Your task to perform on an android device: What's the weather today? Image 0: 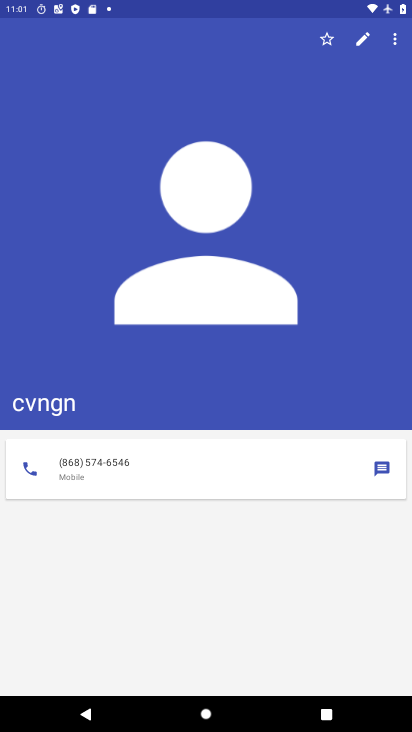
Step 0: press home button
Your task to perform on an android device: What's the weather today? Image 1: 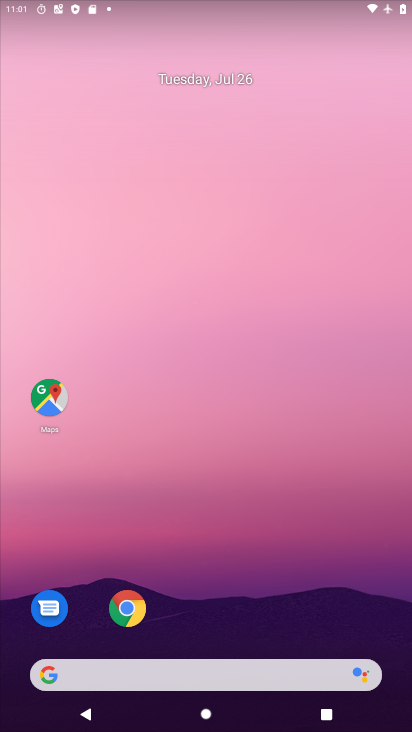
Step 1: drag from (230, 609) to (231, 201)
Your task to perform on an android device: What's the weather today? Image 2: 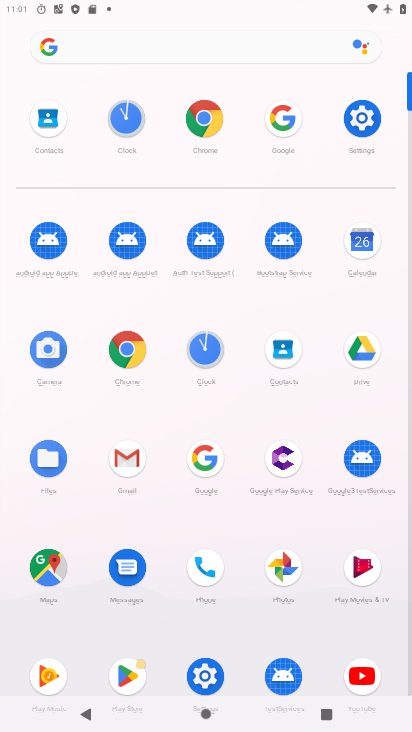
Step 2: click (207, 460)
Your task to perform on an android device: What's the weather today? Image 3: 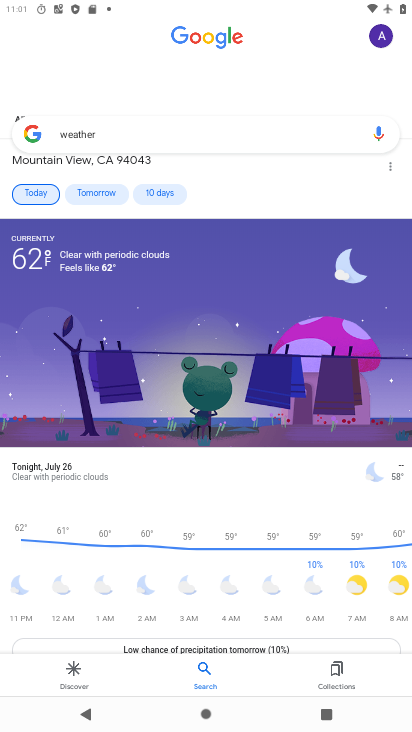
Step 3: task complete